Your task to perform on an android device: turn on notifications settings in the gmail app Image 0: 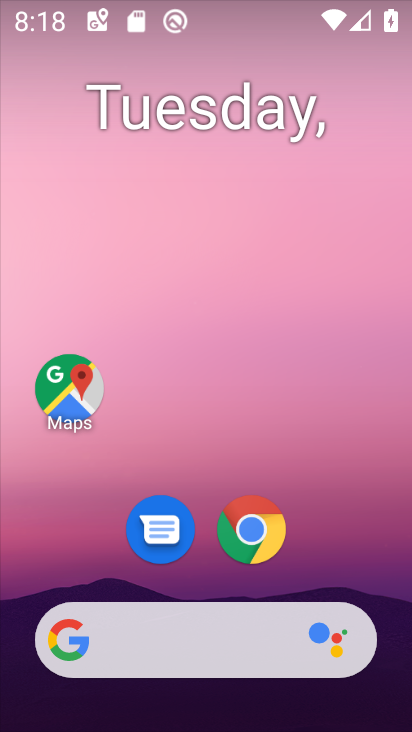
Step 0: drag from (195, 581) to (217, 15)
Your task to perform on an android device: turn on notifications settings in the gmail app Image 1: 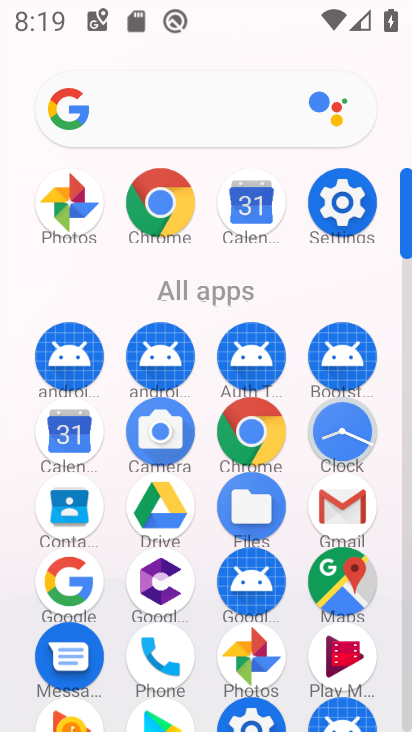
Step 1: click (341, 508)
Your task to perform on an android device: turn on notifications settings in the gmail app Image 2: 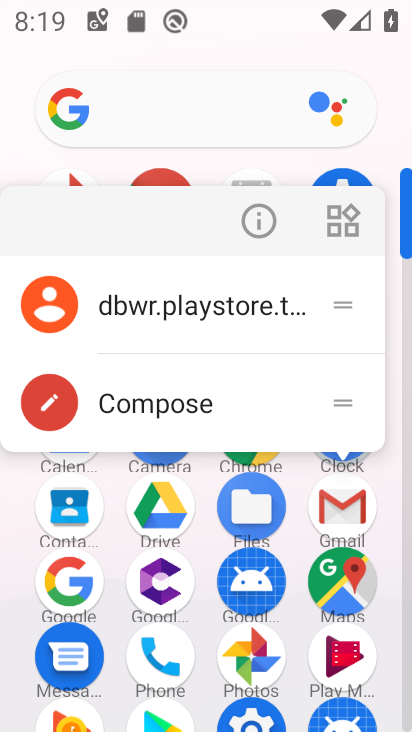
Step 2: click (252, 216)
Your task to perform on an android device: turn on notifications settings in the gmail app Image 3: 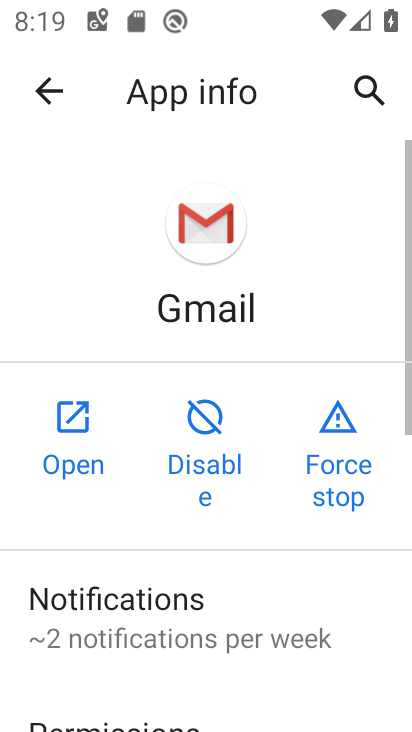
Step 3: click (200, 645)
Your task to perform on an android device: turn on notifications settings in the gmail app Image 4: 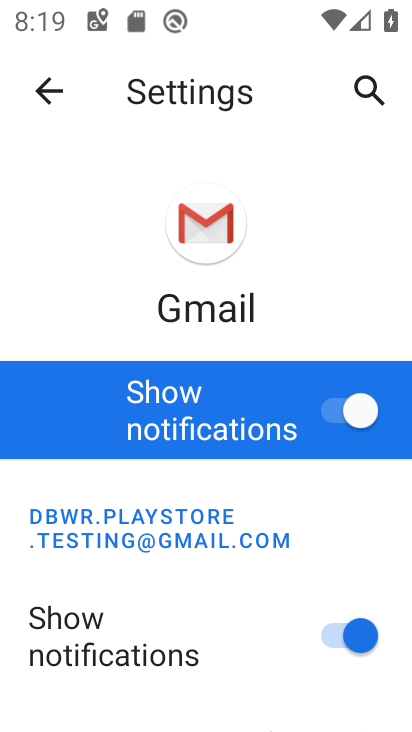
Step 4: task complete